Your task to perform on an android device: Open settings Image 0: 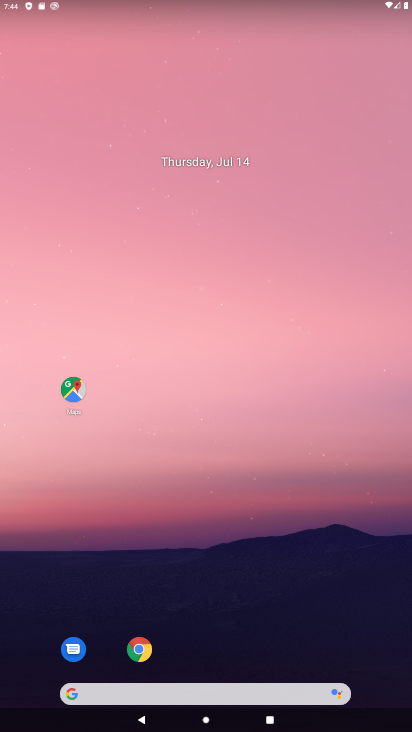
Step 0: drag from (306, 472) to (273, 36)
Your task to perform on an android device: Open settings Image 1: 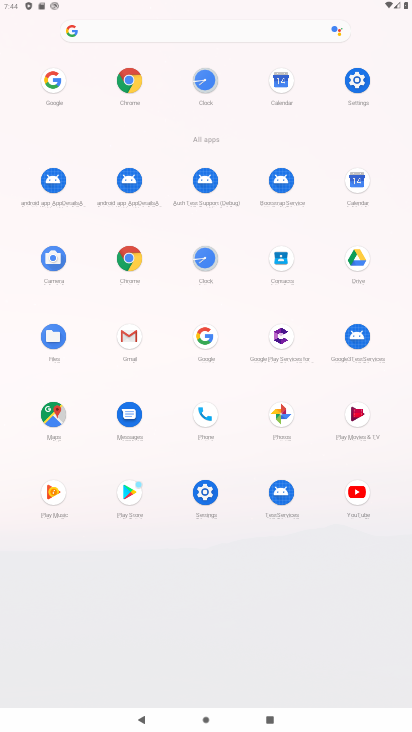
Step 1: click (354, 80)
Your task to perform on an android device: Open settings Image 2: 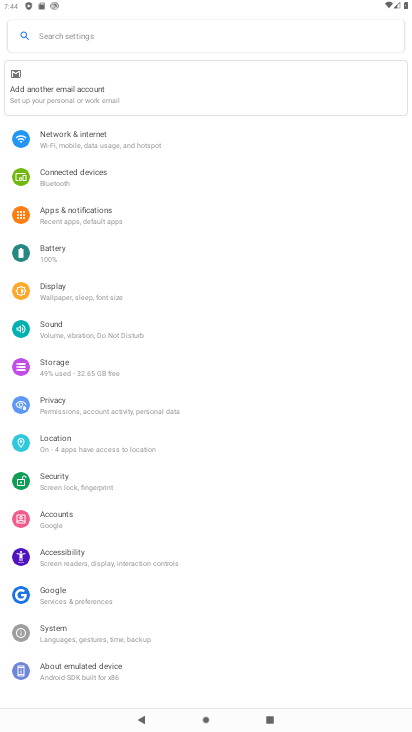
Step 2: task complete